Your task to perform on an android device: change keyboard looks Image 0: 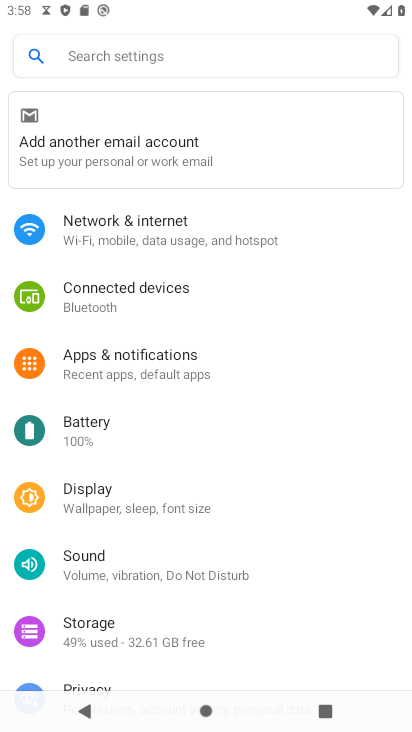
Step 0: drag from (208, 612) to (231, 310)
Your task to perform on an android device: change keyboard looks Image 1: 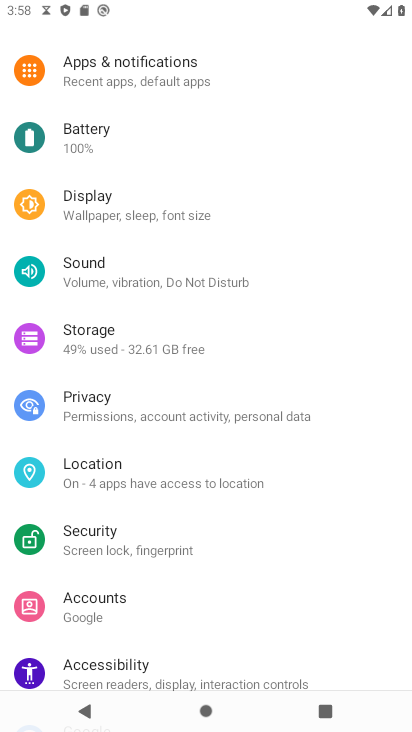
Step 1: drag from (181, 648) to (184, 261)
Your task to perform on an android device: change keyboard looks Image 2: 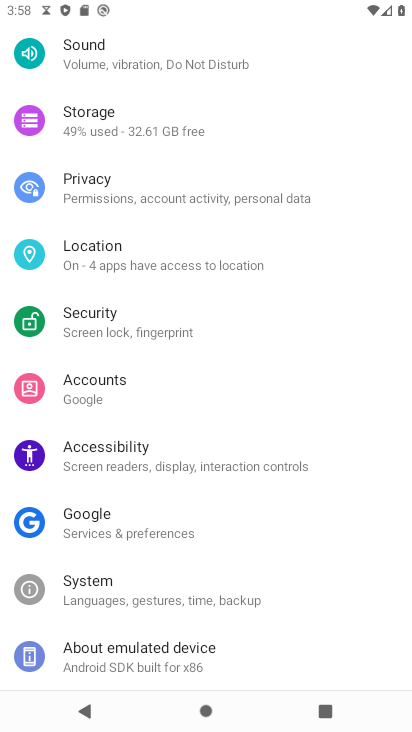
Step 2: drag from (117, 604) to (134, 285)
Your task to perform on an android device: change keyboard looks Image 3: 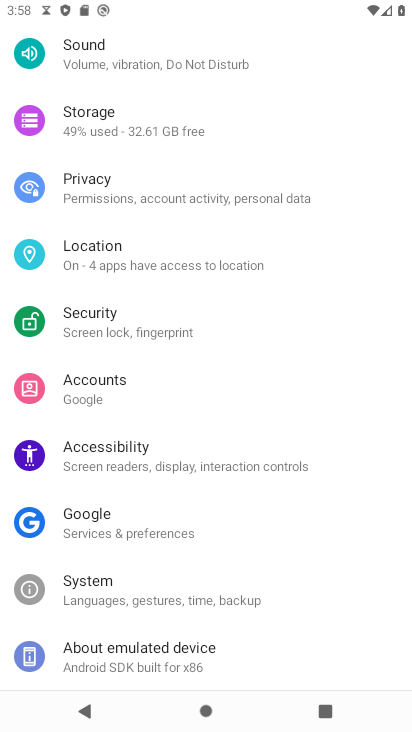
Step 3: click (176, 608)
Your task to perform on an android device: change keyboard looks Image 4: 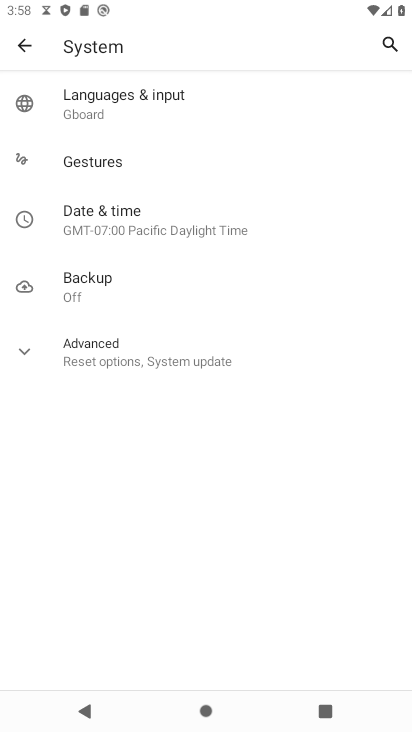
Step 4: click (239, 113)
Your task to perform on an android device: change keyboard looks Image 5: 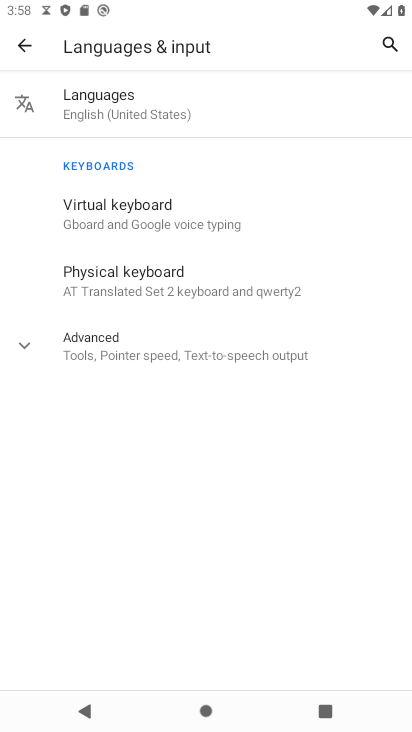
Step 5: click (237, 207)
Your task to perform on an android device: change keyboard looks Image 6: 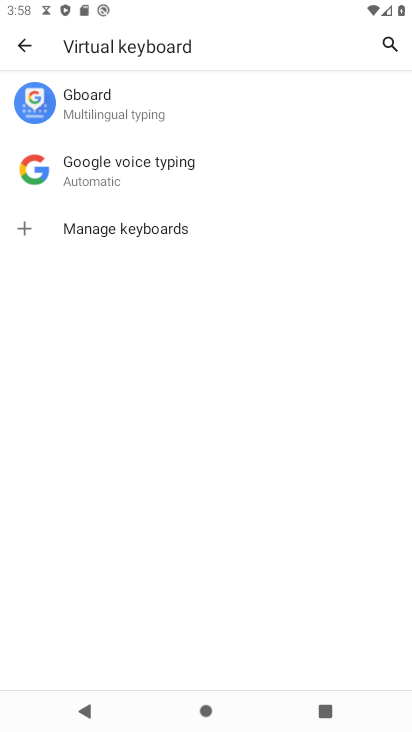
Step 6: click (186, 108)
Your task to perform on an android device: change keyboard looks Image 7: 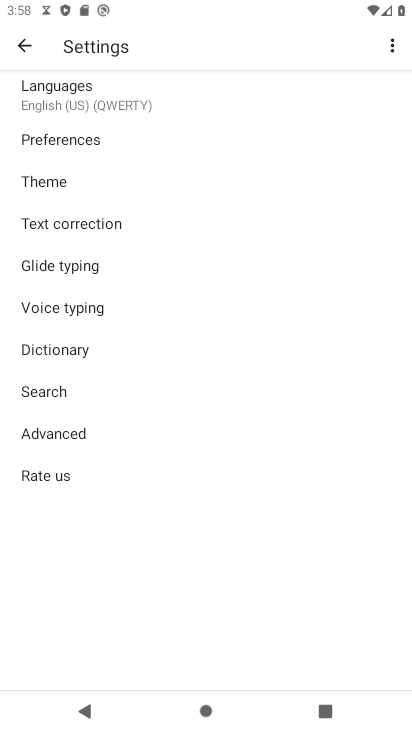
Step 7: click (154, 175)
Your task to perform on an android device: change keyboard looks Image 8: 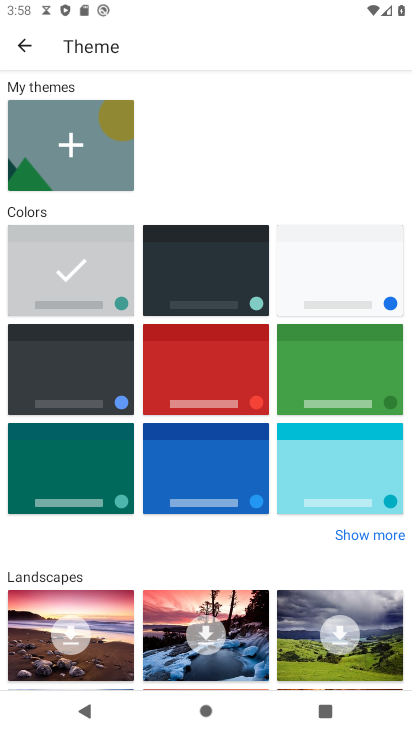
Step 8: click (203, 274)
Your task to perform on an android device: change keyboard looks Image 9: 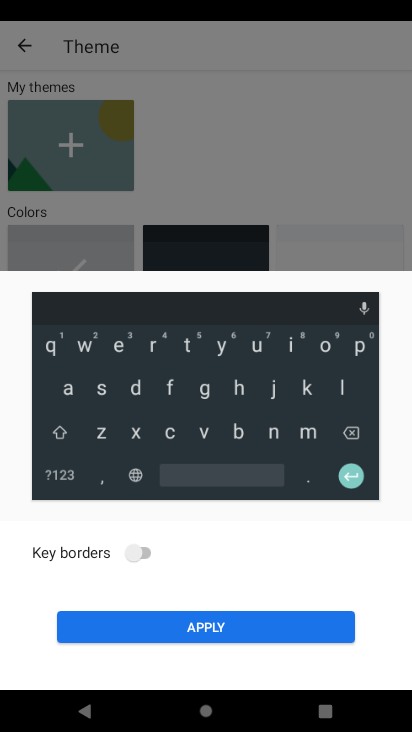
Step 9: click (248, 621)
Your task to perform on an android device: change keyboard looks Image 10: 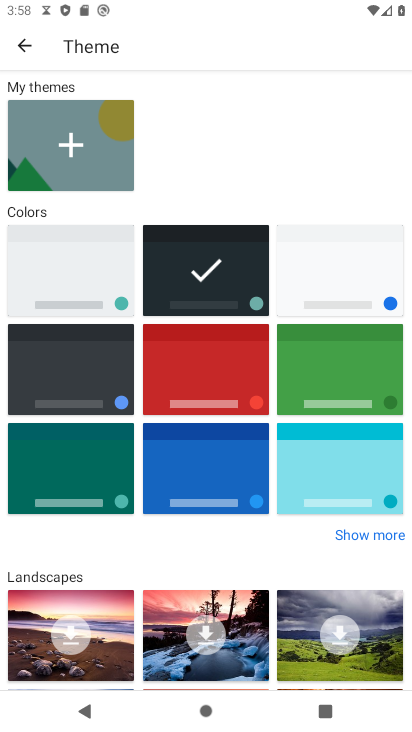
Step 10: task complete